Your task to perform on an android device: Go to accessibility settings Image 0: 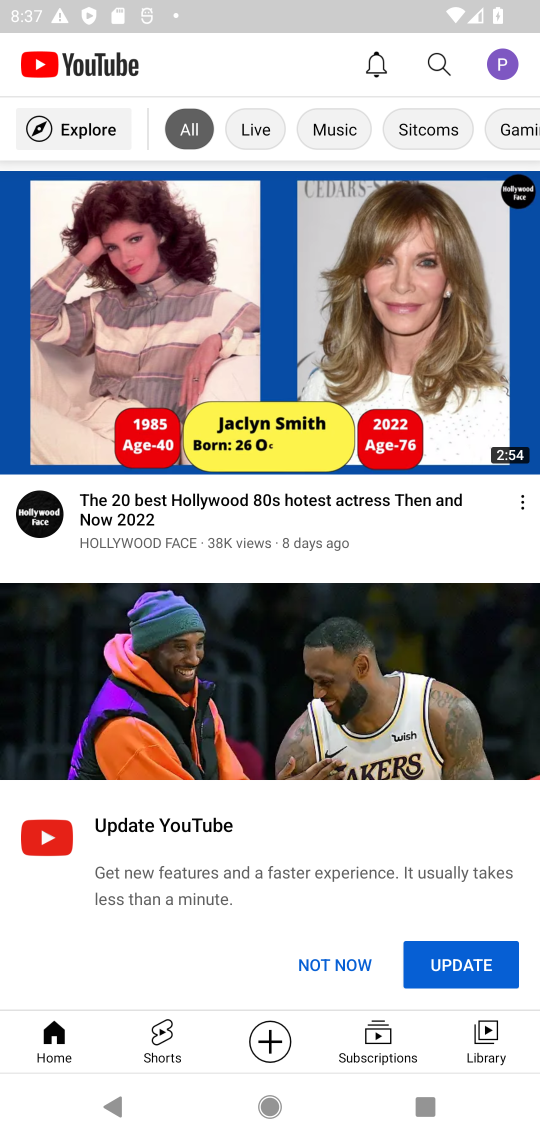
Step 0: press home button
Your task to perform on an android device: Go to accessibility settings Image 1: 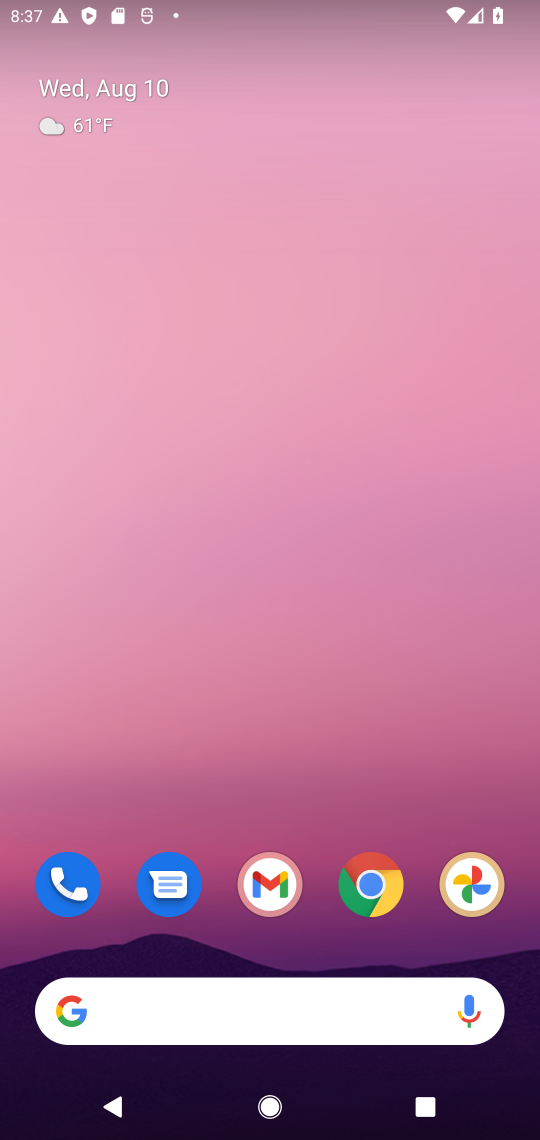
Step 1: drag from (23, 1082) to (118, 255)
Your task to perform on an android device: Go to accessibility settings Image 2: 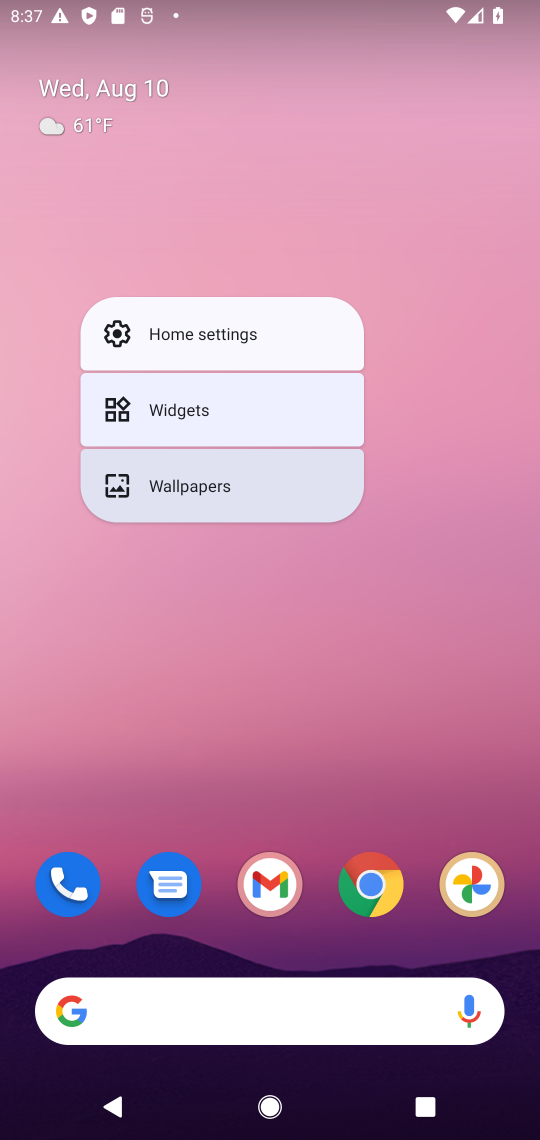
Step 2: drag from (48, 1067) to (511, 246)
Your task to perform on an android device: Go to accessibility settings Image 3: 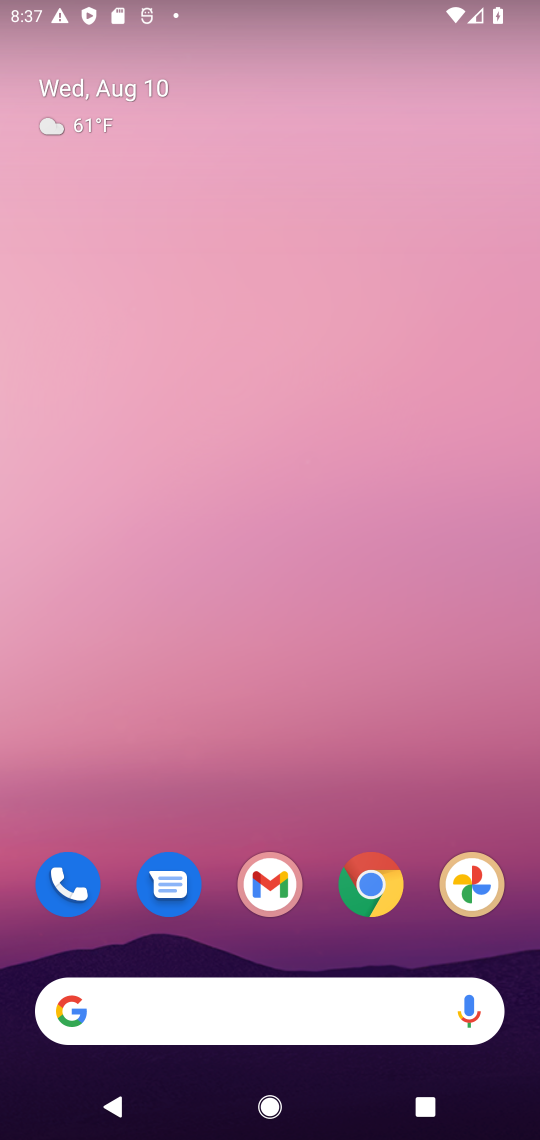
Step 3: drag from (19, 1103) to (242, 357)
Your task to perform on an android device: Go to accessibility settings Image 4: 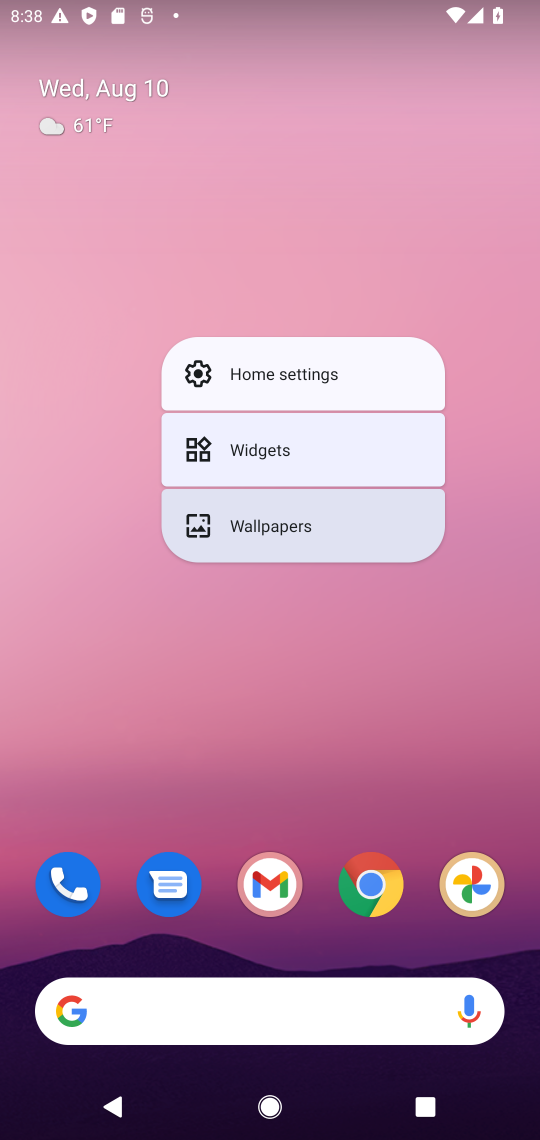
Step 4: drag from (37, 1119) to (115, 31)
Your task to perform on an android device: Go to accessibility settings Image 5: 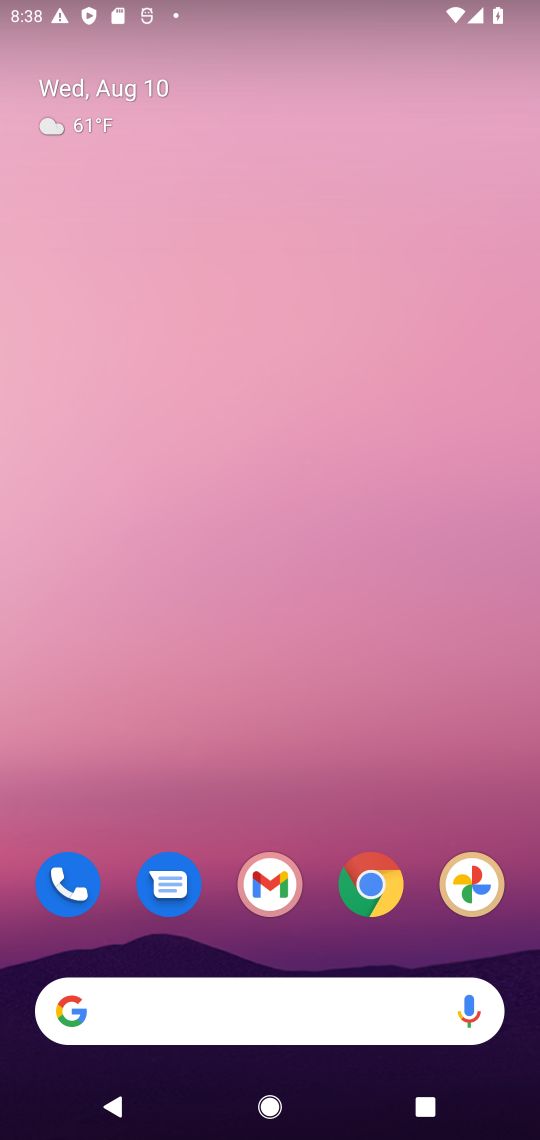
Step 5: drag from (16, 1091) to (286, 100)
Your task to perform on an android device: Go to accessibility settings Image 6: 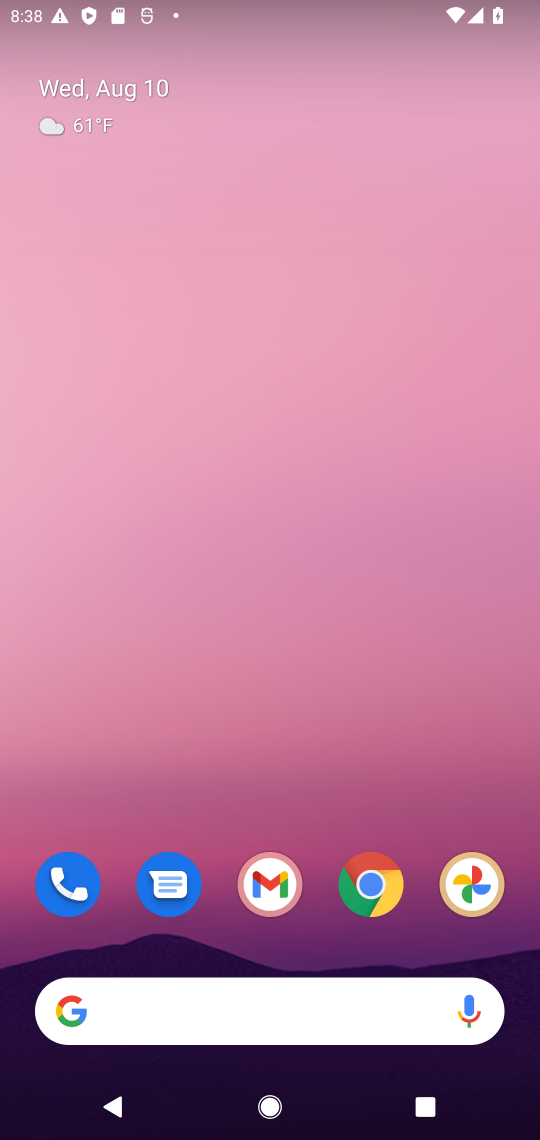
Step 6: drag from (31, 1065) to (457, 72)
Your task to perform on an android device: Go to accessibility settings Image 7: 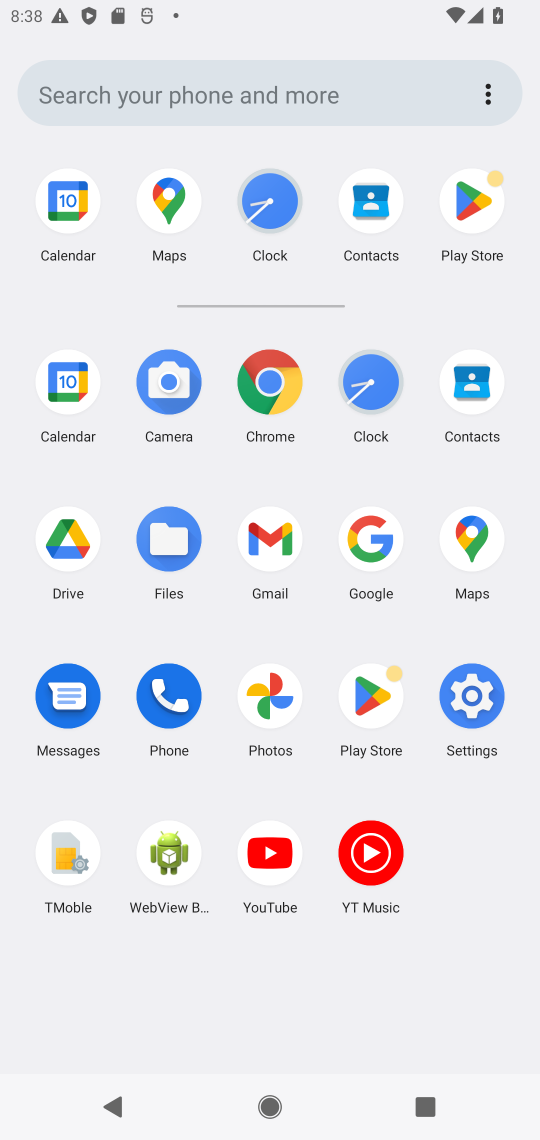
Step 7: click (476, 664)
Your task to perform on an android device: Go to accessibility settings Image 8: 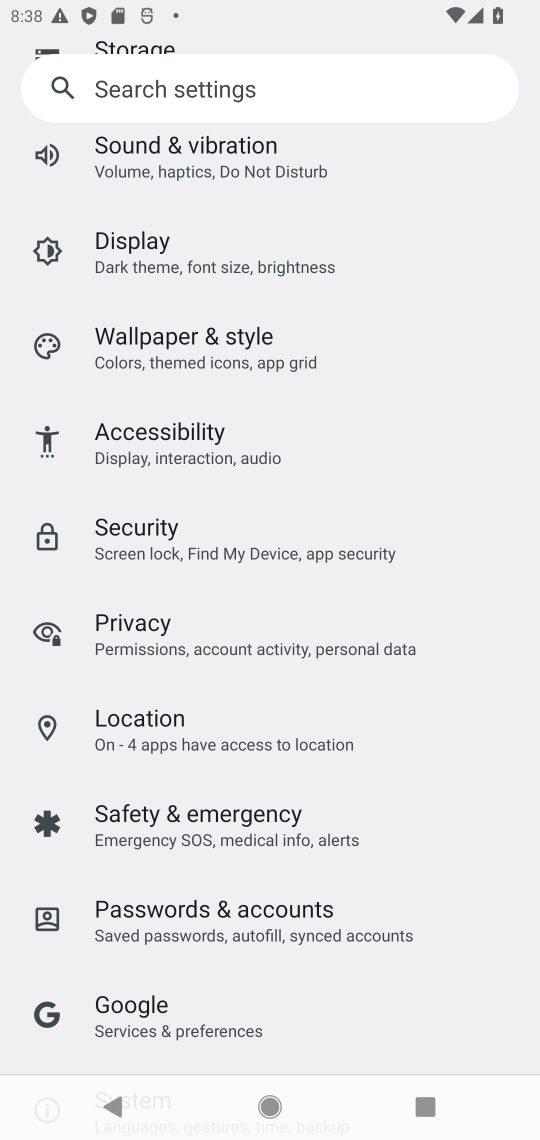
Step 8: drag from (340, 990) to (291, 125)
Your task to perform on an android device: Go to accessibility settings Image 9: 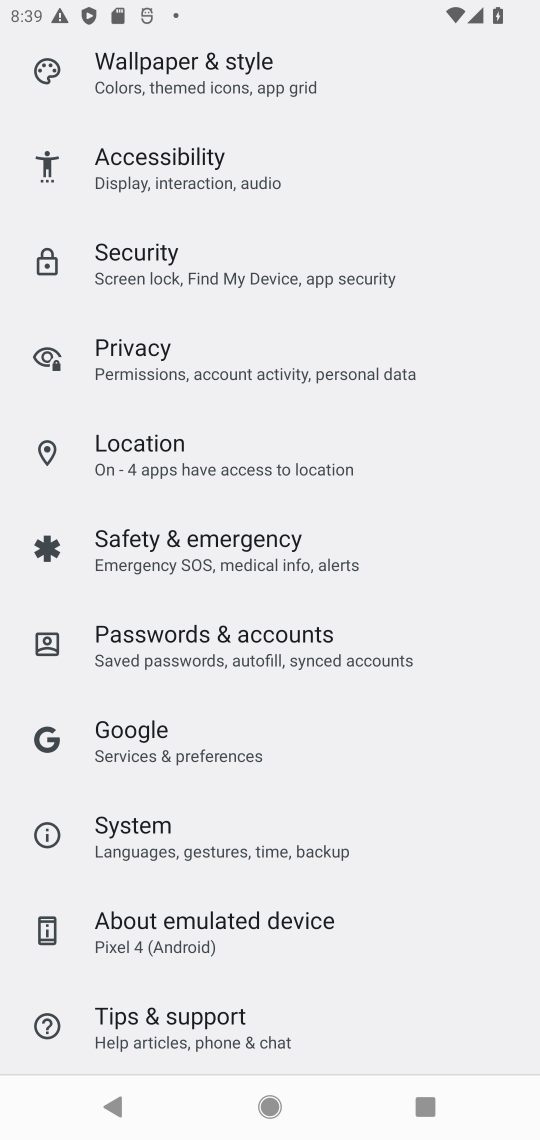
Step 9: drag from (382, 1002) to (457, 209)
Your task to perform on an android device: Go to accessibility settings Image 10: 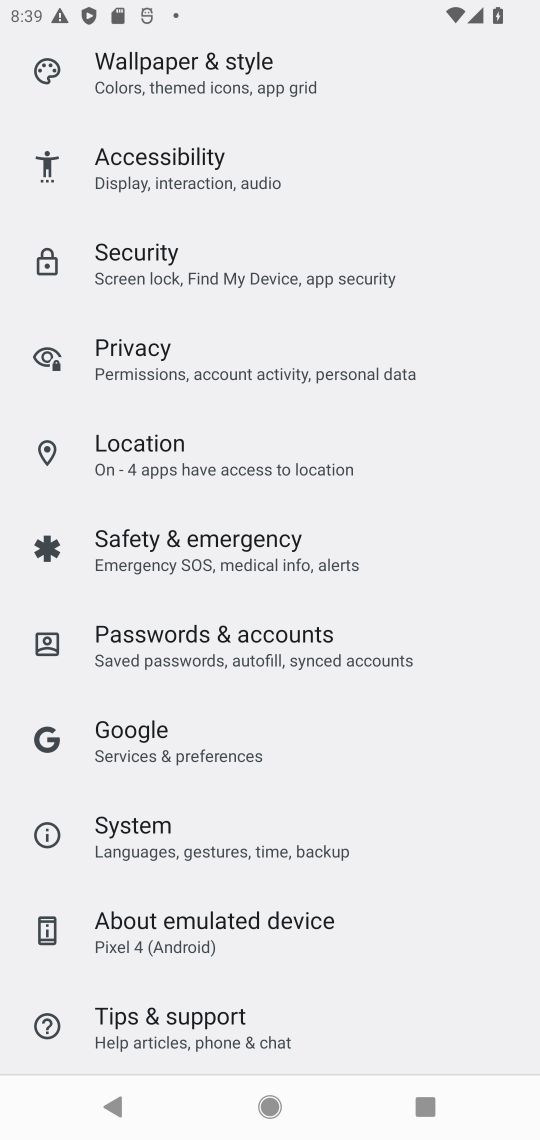
Step 10: click (181, 178)
Your task to perform on an android device: Go to accessibility settings Image 11: 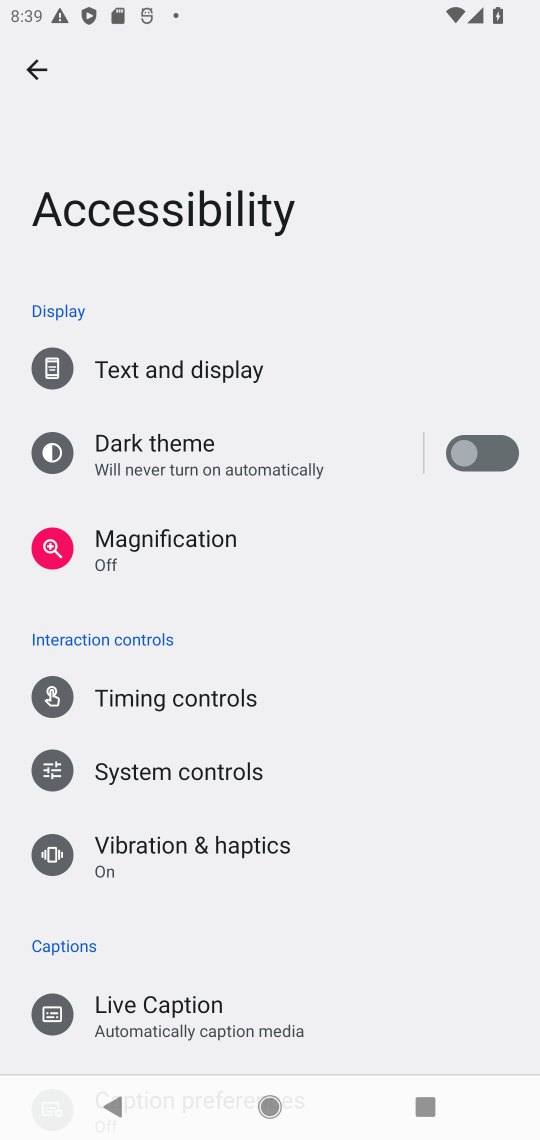
Step 11: task complete